Your task to perform on an android device: Search for Italian restaurants on Maps Image 0: 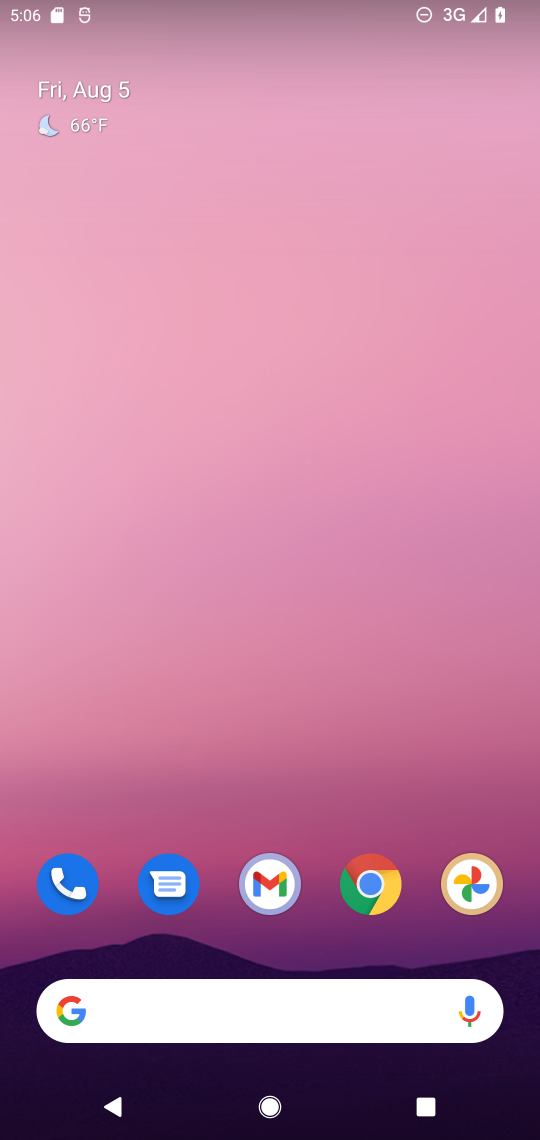
Step 0: drag from (446, 961) to (318, 120)
Your task to perform on an android device: Search for Italian restaurants on Maps Image 1: 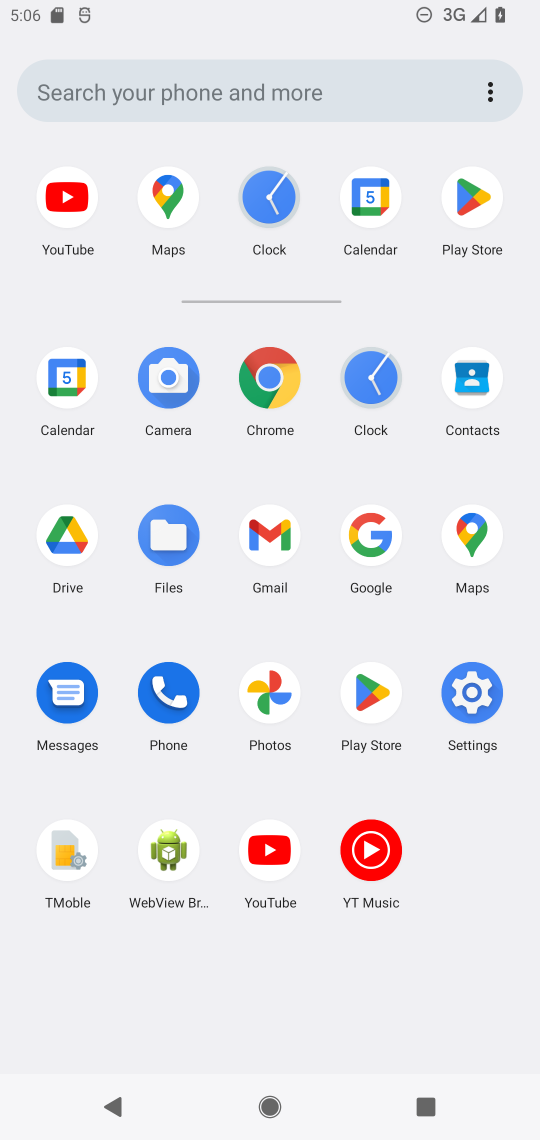
Step 1: click (471, 544)
Your task to perform on an android device: Search for Italian restaurants on Maps Image 2: 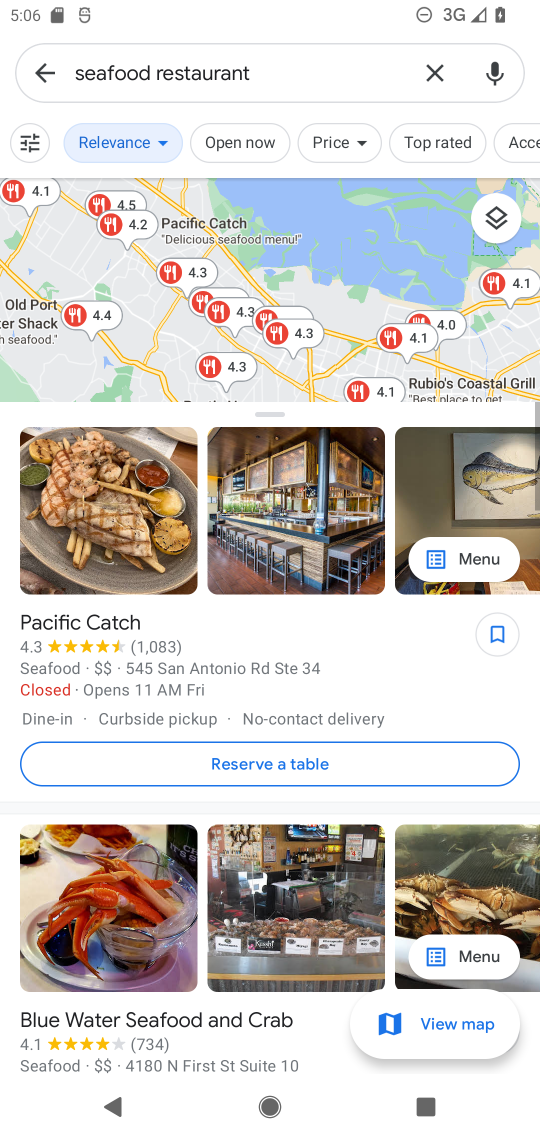
Step 2: click (447, 71)
Your task to perform on an android device: Search for Italian restaurants on Maps Image 3: 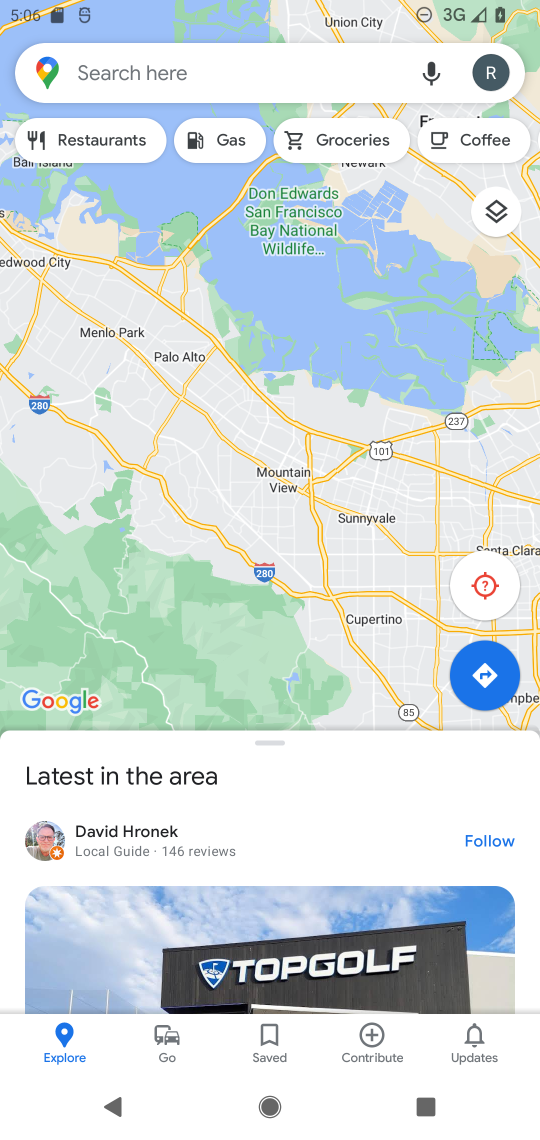
Step 3: click (173, 65)
Your task to perform on an android device: Search for Italian restaurants on Maps Image 4: 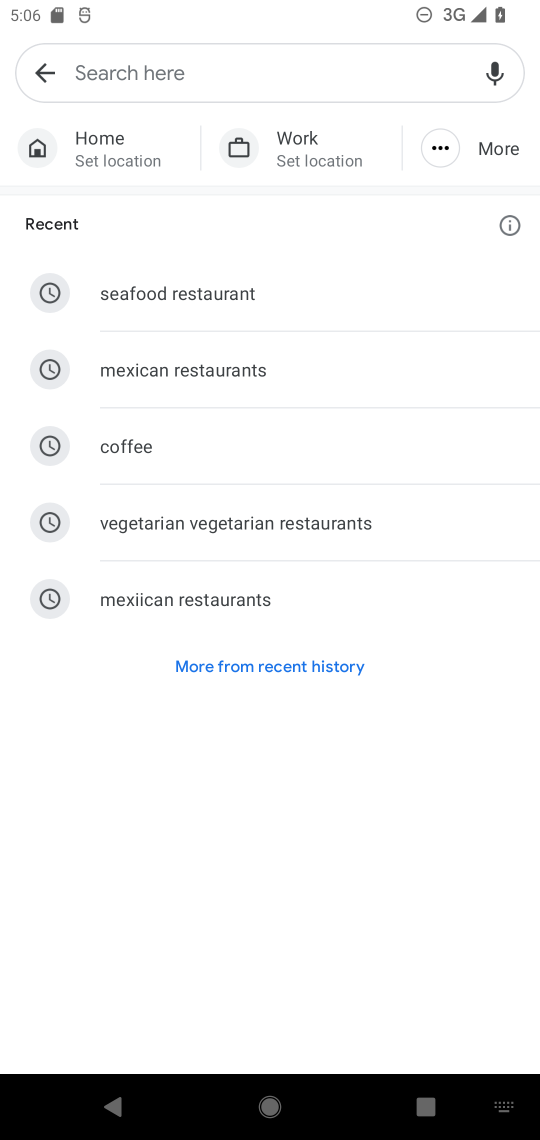
Step 4: type "Italian restaurants"
Your task to perform on an android device: Search for Italian restaurants on Maps Image 5: 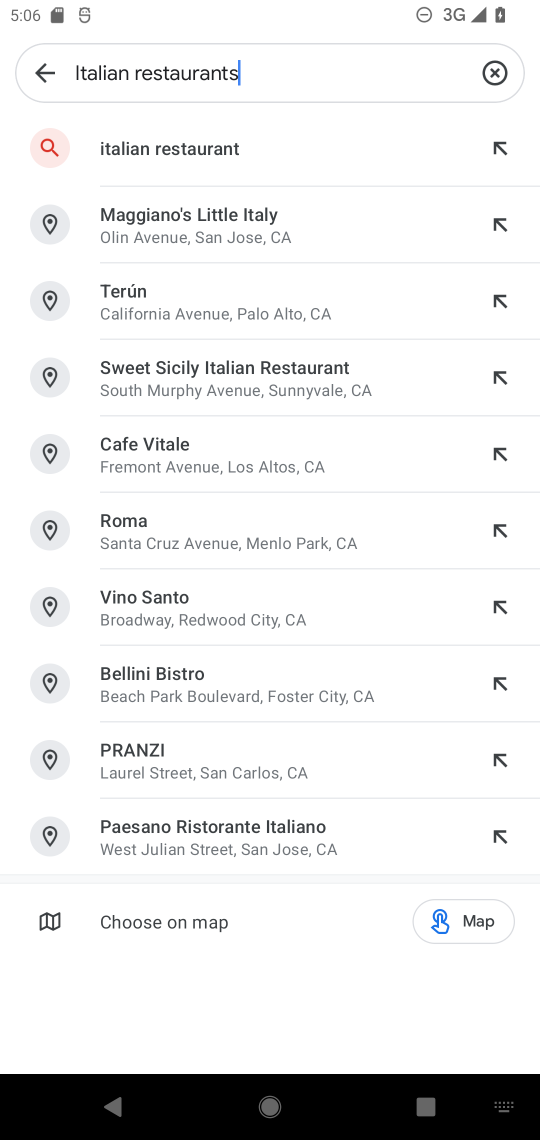
Step 5: click (180, 152)
Your task to perform on an android device: Search for Italian restaurants on Maps Image 6: 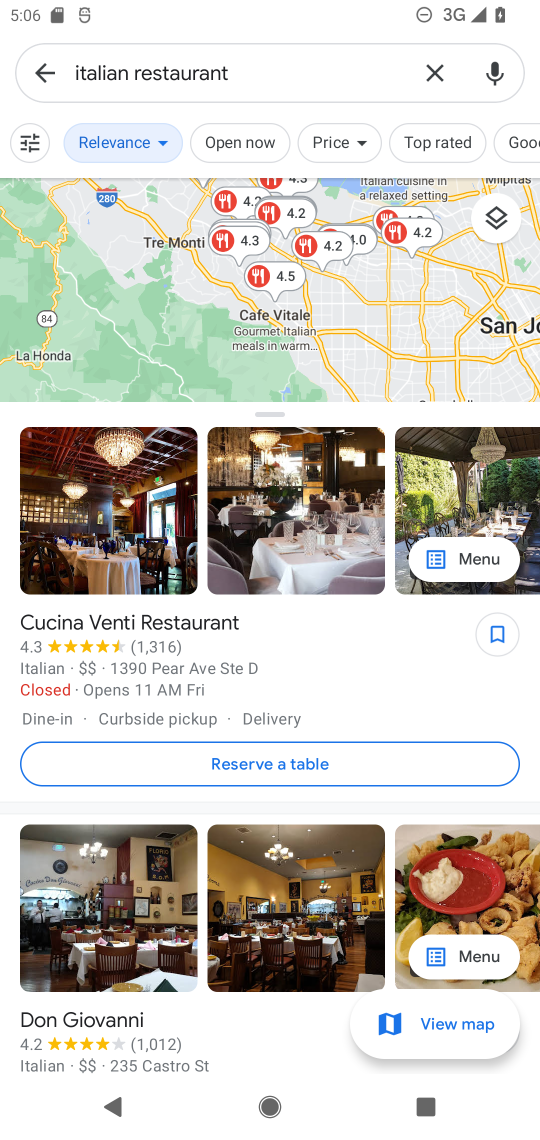
Step 6: task complete